Your task to perform on an android device: toggle airplane mode Image 0: 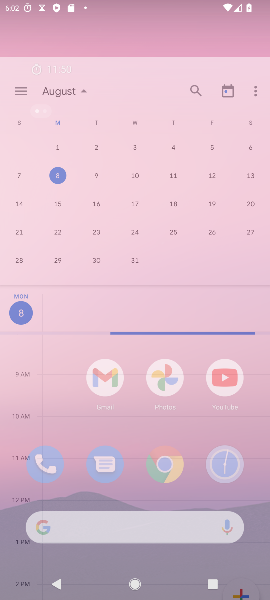
Step 0: press home button
Your task to perform on an android device: toggle airplane mode Image 1: 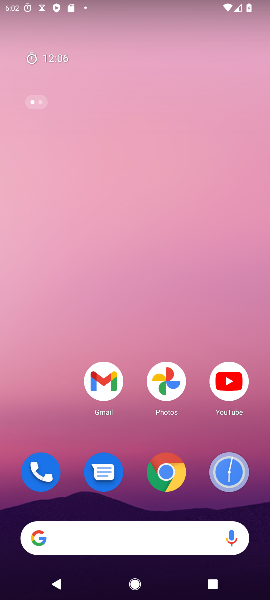
Step 1: drag from (141, 1) to (52, 532)
Your task to perform on an android device: toggle airplane mode Image 2: 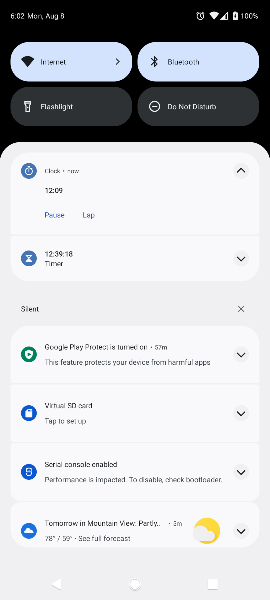
Step 2: drag from (147, 596) to (160, 20)
Your task to perform on an android device: toggle airplane mode Image 3: 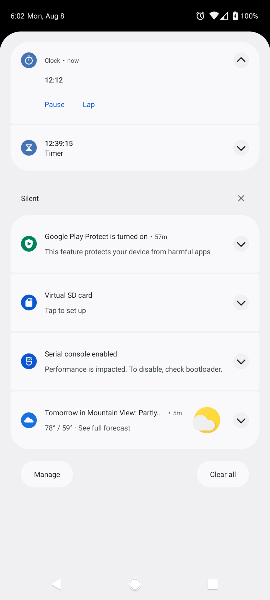
Step 3: drag from (105, 592) to (135, 28)
Your task to perform on an android device: toggle airplane mode Image 4: 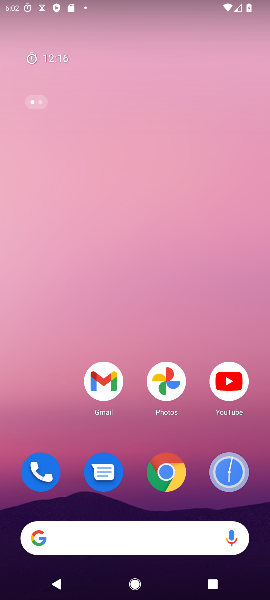
Step 4: drag from (144, 512) to (106, 67)
Your task to perform on an android device: toggle airplane mode Image 5: 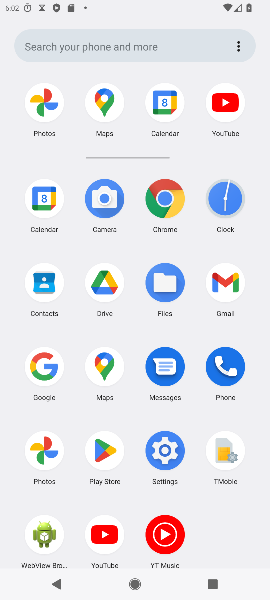
Step 5: click (166, 453)
Your task to perform on an android device: toggle airplane mode Image 6: 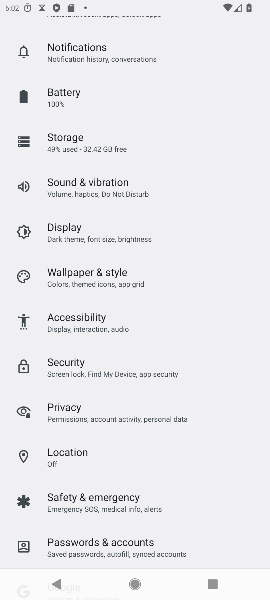
Step 6: drag from (183, 128) to (184, 593)
Your task to perform on an android device: toggle airplane mode Image 7: 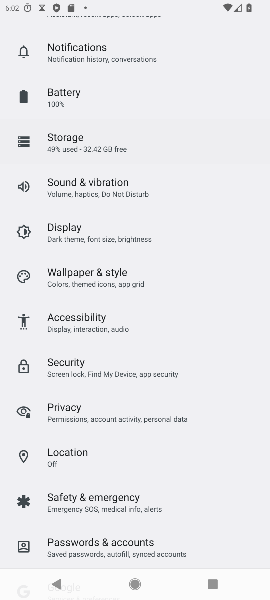
Step 7: drag from (226, 250) to (173, 545)
Your task to perform on an android device: toggle airplane mode Image 8: 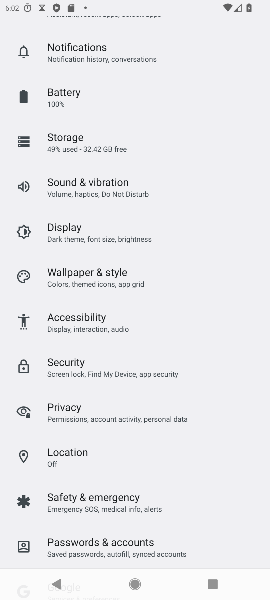
Step 8: drag from (205, 103) to (160, 591)
Your task to perform on an android device: toggle airplane mode Image 9: 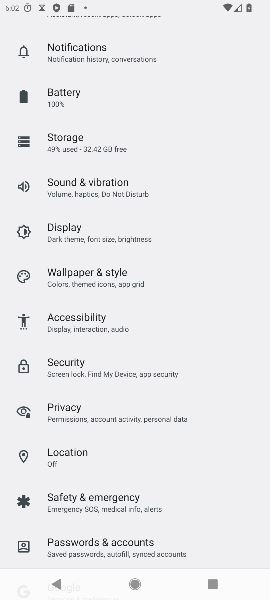
Step 9: drag from (147, 78) to (164, 585)
Your task to perform on an android device: toggle airplane mode Image 10: 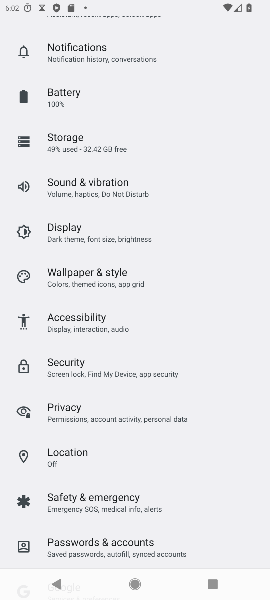
Step 10: drag from (218, 455) to (102, 566)
Your task to perform on an android device: toggle airplane mode Image 11: 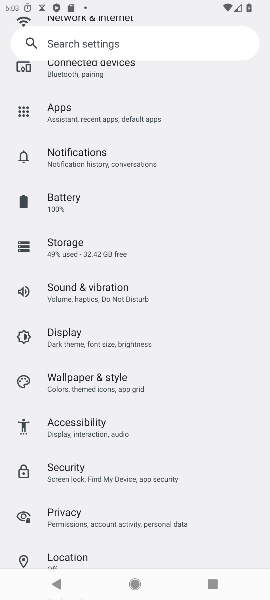
Step 11: drag from (187, 94) to (222, 441)
Your task to perform on an android device: toggle airplane mode Image 12: 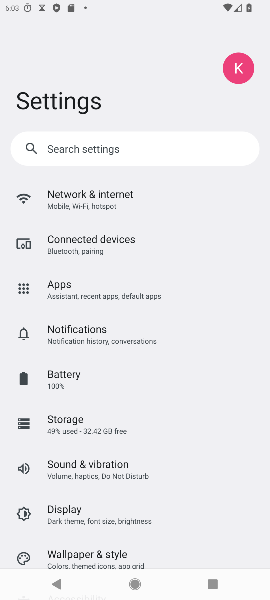
Step 12: click (89, 201)
Your task to perform on an android device: toggle airplane mode Image 13: 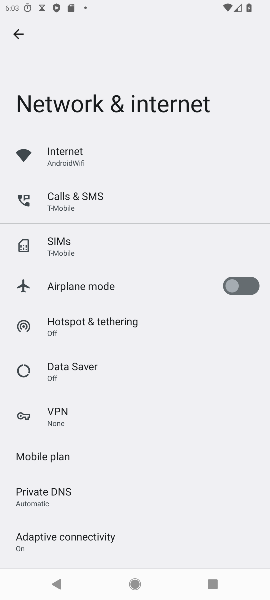
Step 13: click (237, 287)
Your task to perform on an android device: toggle airplane mode Image 14: 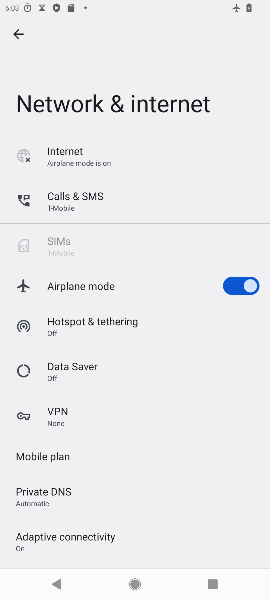
Step 14: task complete